Your task to perform on an android device: turn on priority inbox in the gmail app Image 0: 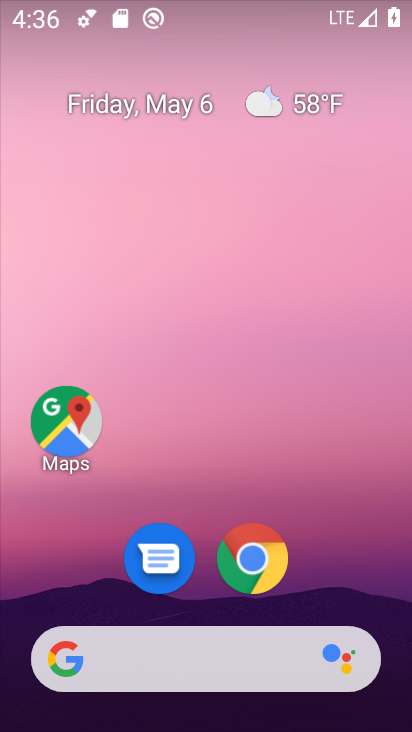
Step 0: drag from (324, 642) to (323, 11)
Your task to perform on an android device: turn on priority inbox in the gmail app Image 1: 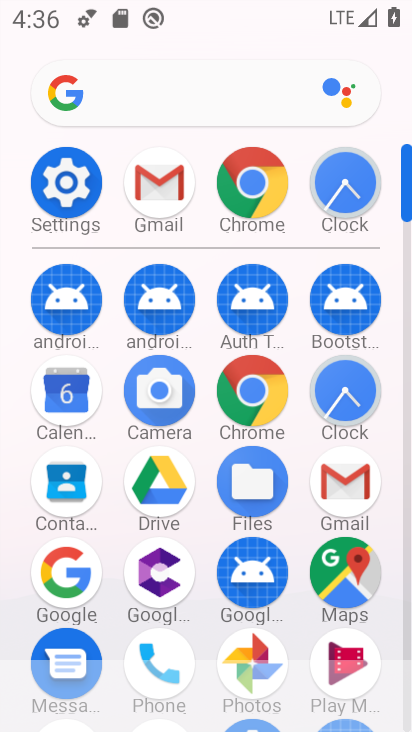
Step 1: click (350, 489)
Your task to perform on an android device: turn on priority inbox in the gmail app Image 2: 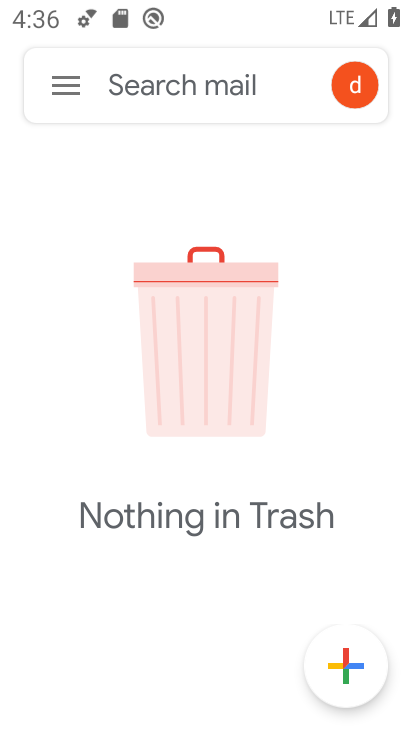
Step 2: click (70, 77)
Your task to perform on an android device: turn on priority inbox in the gmail app Image 3: 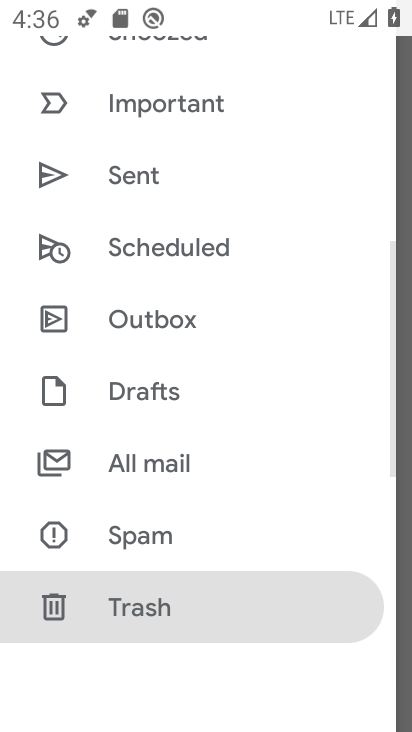
Step 3: drag from (236, 169) to (220, 91)
Your task to perform on an android device: turn on priority inbox in the gmail app Image 4: 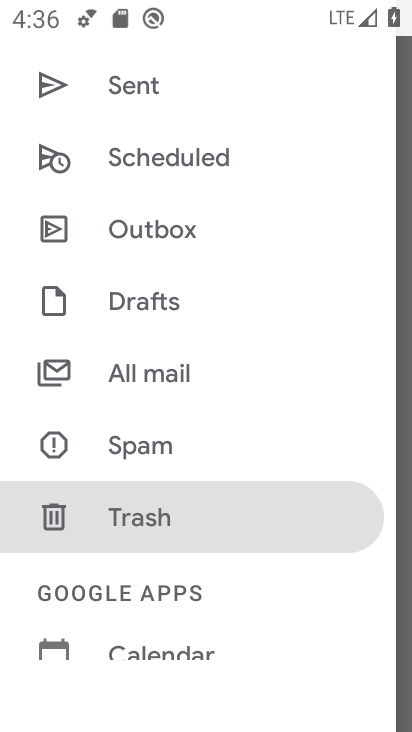
Step 4: drag from (222, 578) to (218, 151)
Your task to perform on an android device: turn on priority inbox in the gmail app Image 5: 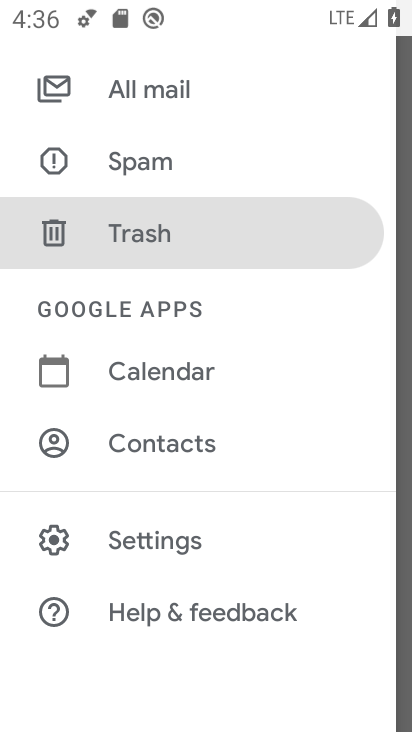
Step 5: click (182, 543)
Your task to perform on an android device: turn on priority inbox in the gmail app Image 6: 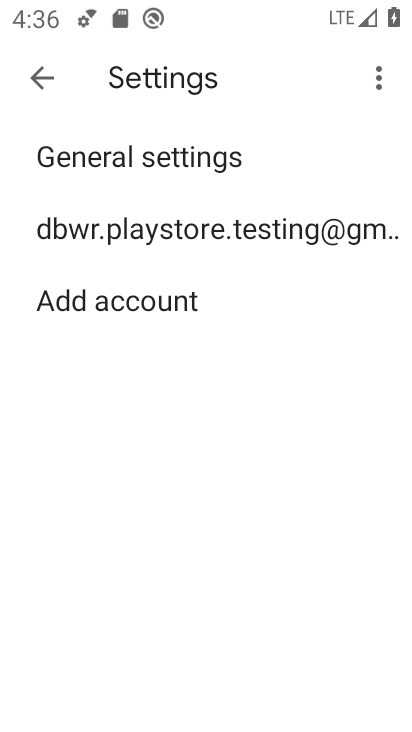
Step 6: click (124, 231)
Your task to perform on an android device: turn on priority inbox in the gmail app Image 7: 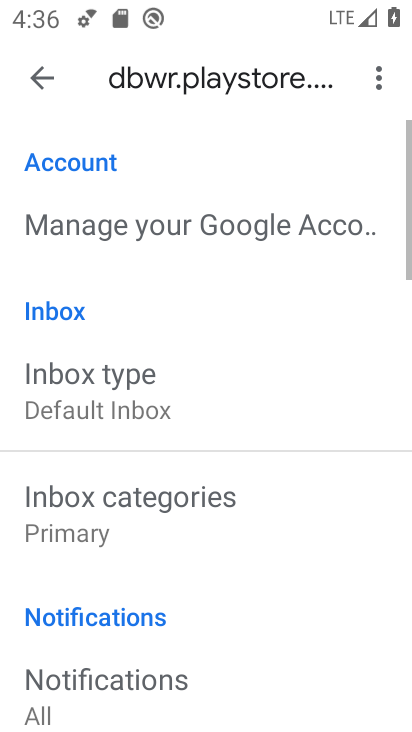
Step 7: click (156, 414)
Your task to perform on an android device: turn on priority inbox in the gmail app Image 8: 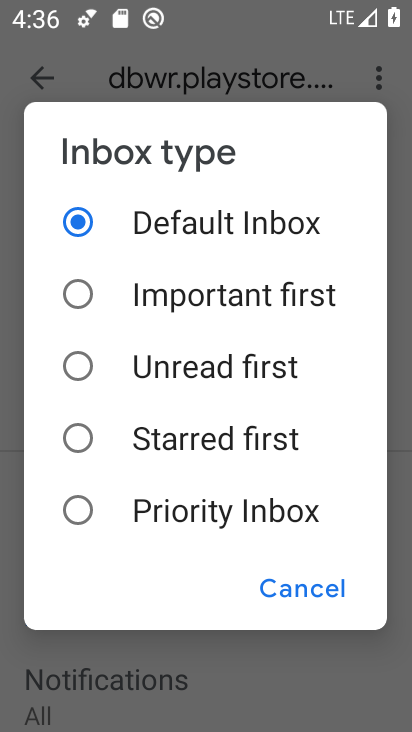
Step 8: click (87, 510)
Your task to perform on an android device: turn on priority inbox in the gmail app Image 9: 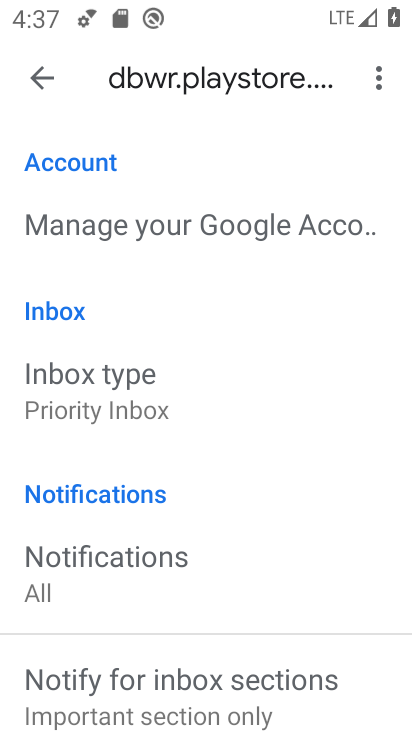
Step 9: task complete